Your task to perform on an android device: Go to Amazon Image 0: 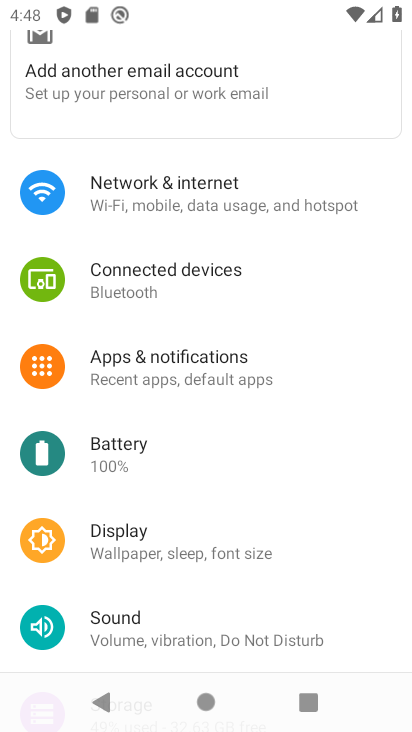
Step 0: press home button
Your task to perform on an android device: Go to Amazon Image 1: 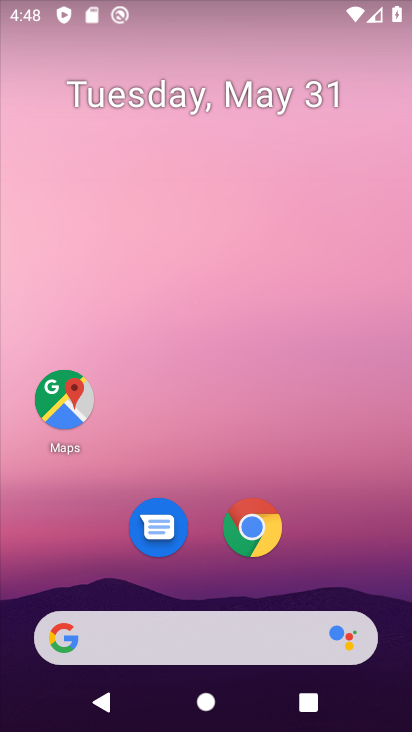
Step 1: drag from (304, 566) to (283, 29)
Your task to perform on an android device: Go to Amazon Image 2: 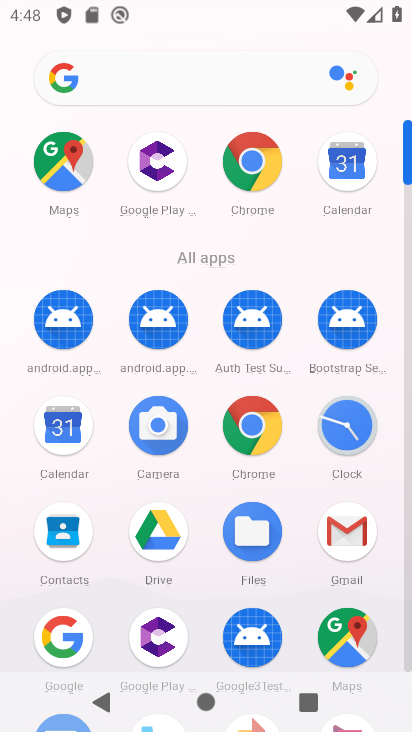
Step 2: click (250, 434)
Your task to perform on an android device: Go to Amazon Image 3: 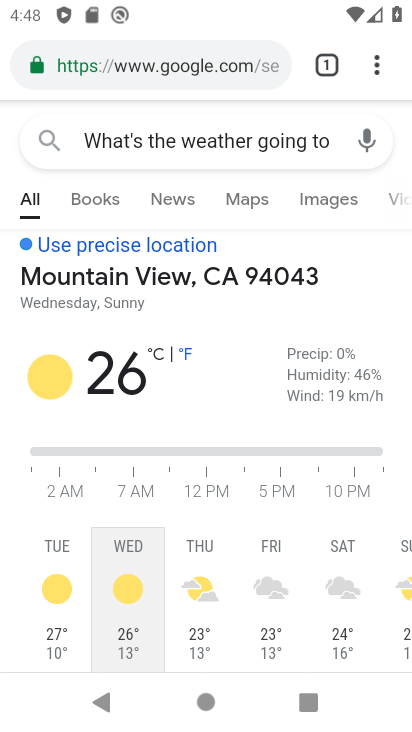
Step 3: drag from (376, 62) to (137, 132)
Your task to perform on an android device: Go to Amazon Image 4: 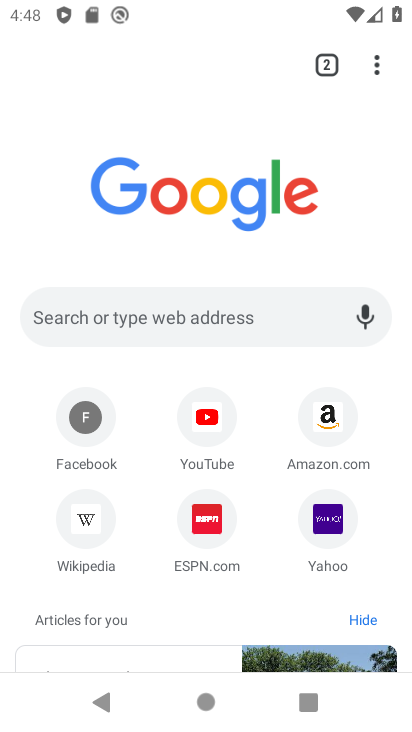
Step 4: click (318, 409)
Your task to perform on an android device: Go to Amazon Image 5: 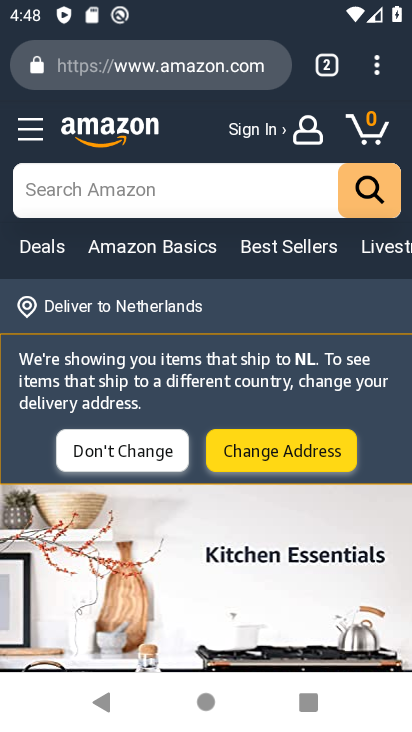
Step 5: task complete